Your task to perform on an android device: Clear the cart on bestbuy.com. Add "panasonic triple a" to the cart on bestbuy.com, then select checkout. Image 0: 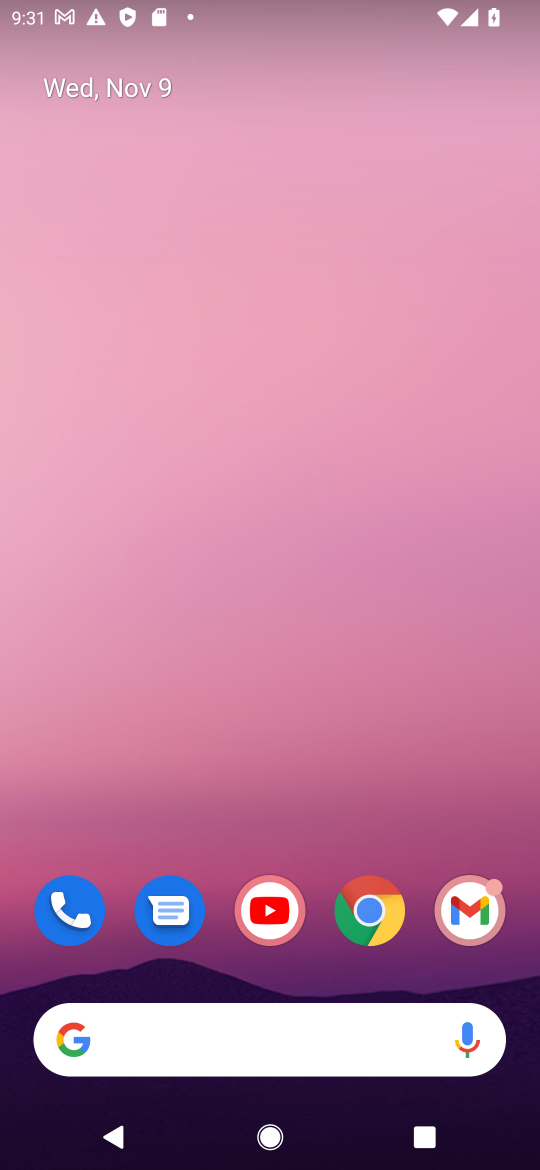
Step 0: click (374, 916)
Your task to perform on an android device: Clear the cart on bestbuy.com. Add "panasonic triple a" to the cart on bestbuy.com, then select checkout. Image 1: 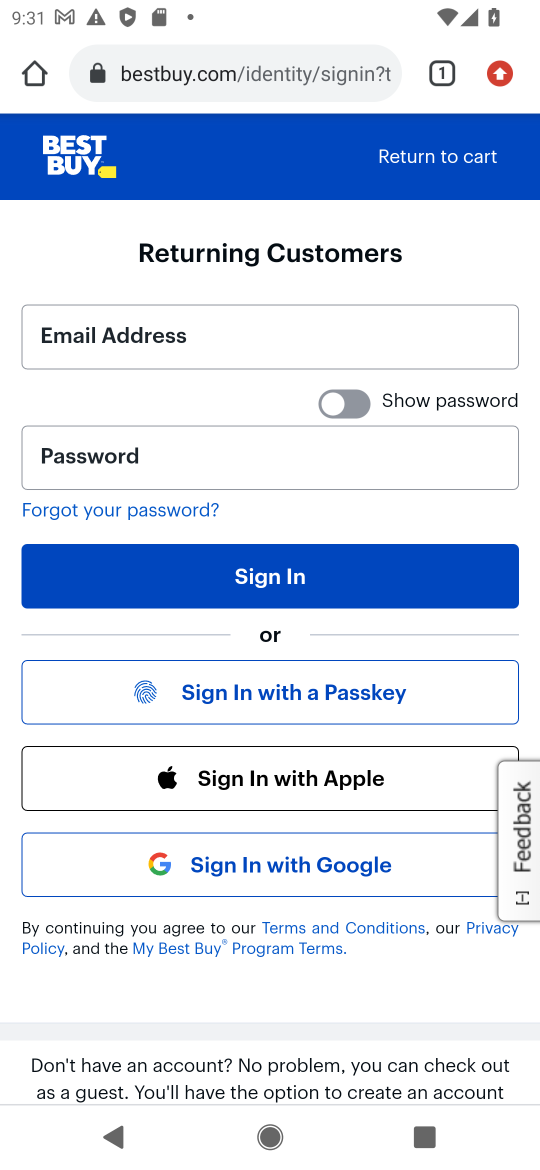
Step 1: click (415, 160)
Your task to perform on an android device: Clear the cart on bestbuy.com. Add "panasonic triple a" to the cart on bestbuy.com, then select checkout. Image 2: 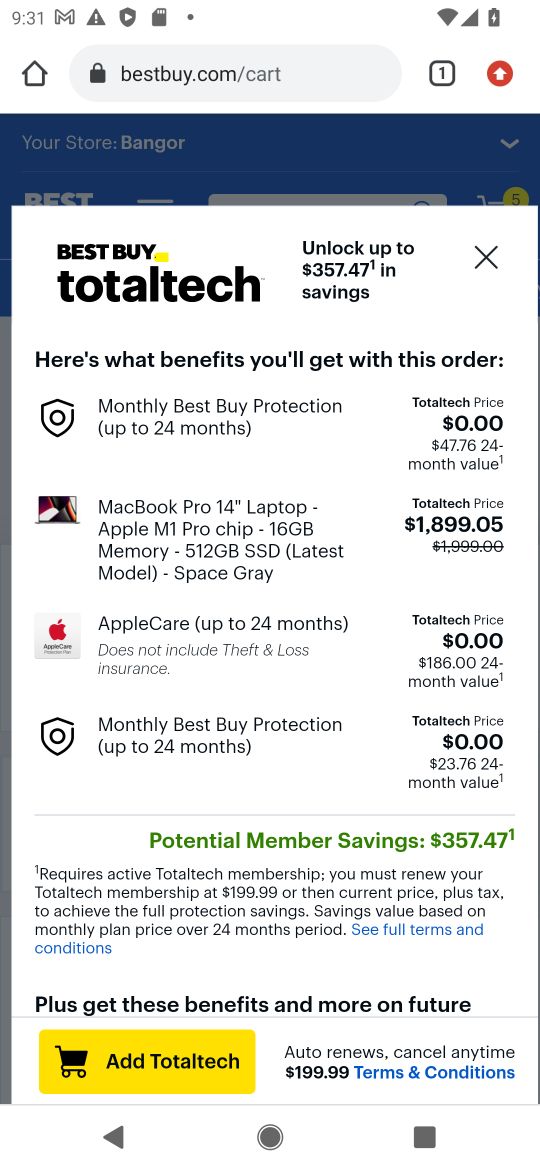
Step 2: click (493, 265)
Your task to perform on an android device: Clear the cart on bestbuy.com. Add "panasonic triple a" to the cart on bestbuy.com, then select checkout. Image 3: 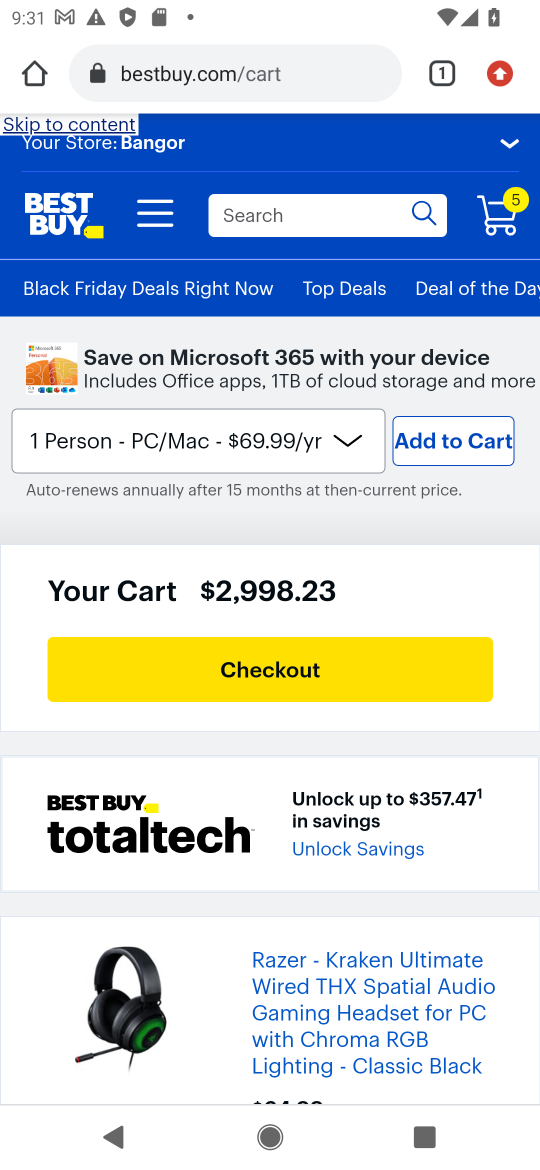
Step 3: drag from (176, 740) to (232, 349)
Your task to perform on an android device: Clear the cart on bestbuy.com. Add "panasonic triple a" to the cart on bestbuy.com, then select checkout. Image 4: 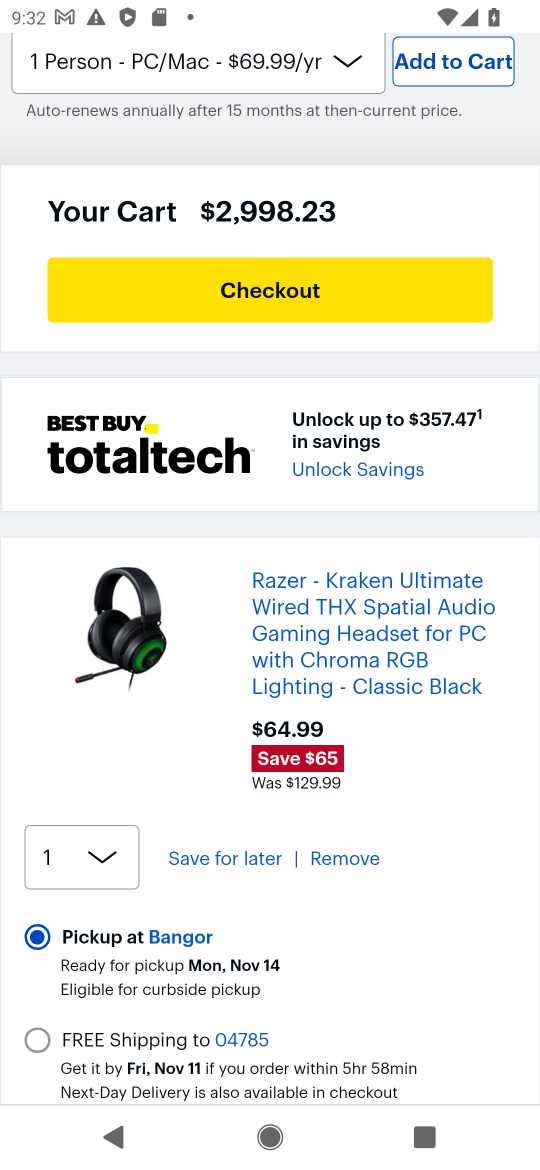
Step 4: click (354, 861)
Your task to perform on an android device: Clear the cart on bestbuy.com. Add "panasonic triple a" to the cart on bestbuy.com, then select checkout. Image 5: 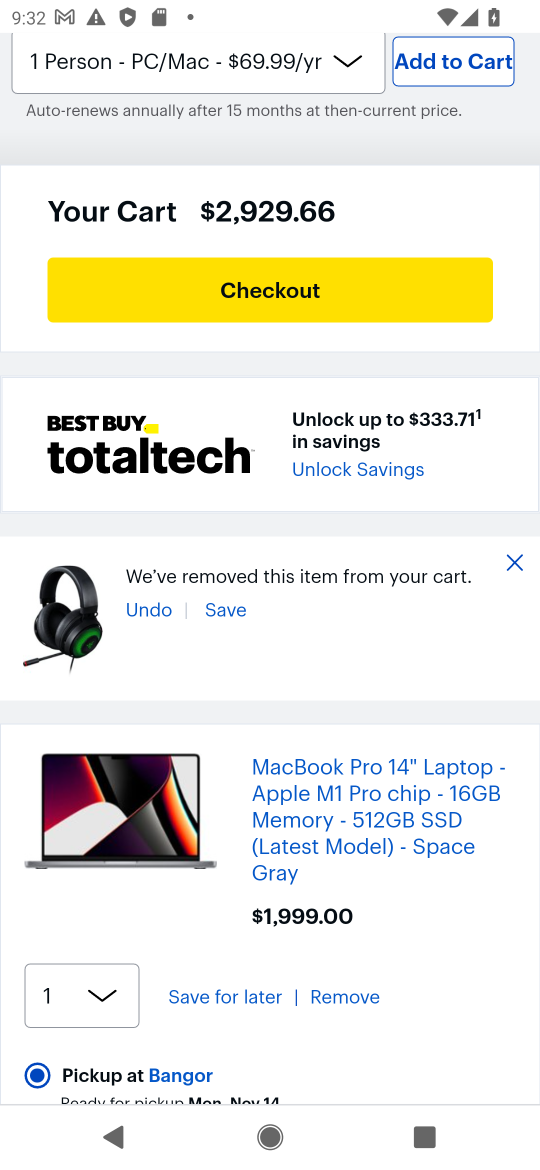
Step 5: click (355, 1009)
Your task to perform on an android device: Clear the cart on bestbuy.com. Add "panasonic triple a" to the cart on bestbuy.com, then select checkout. Image 6: 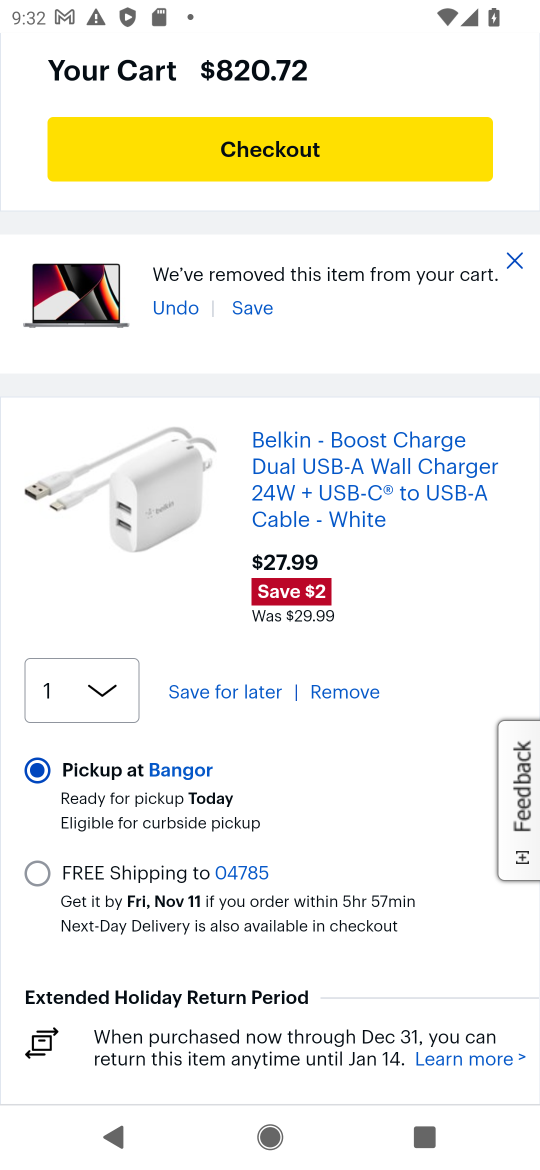
Step 6: click (331, 699)
Your task to perform on an android device: Clear the cart on bestbuy.com. Add "panasonic triple a" to the cart on bestbuy.com, then select checkout. Image 7: 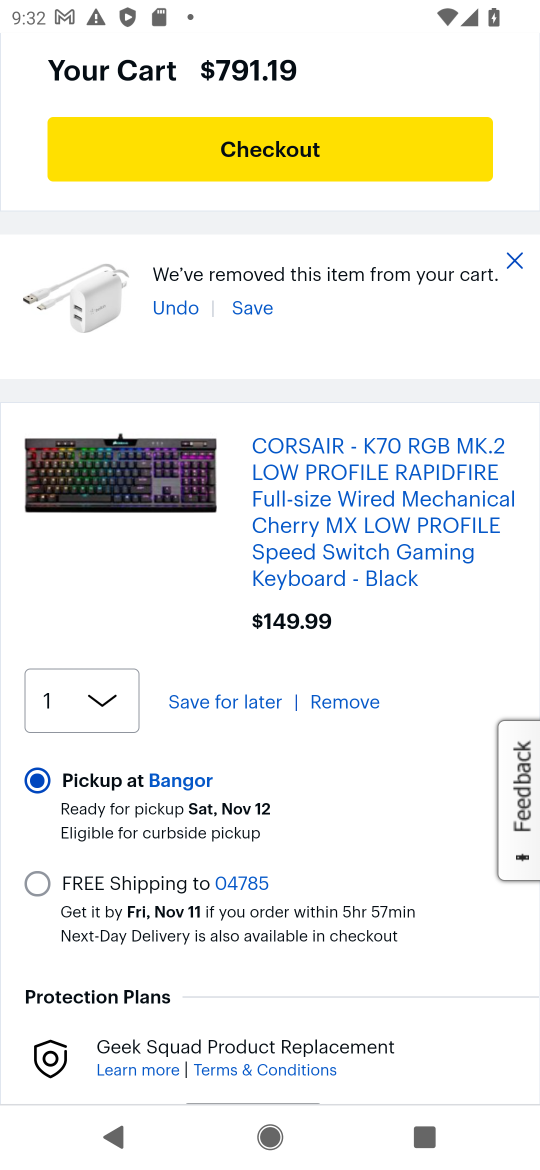
Step 7: click (331, 699)
Your task to perform on an android device: Clear the cart on bestbuy.com. Add "panasonic triple a" to the cart on bestbuy.com, then select checkout. Image 8: 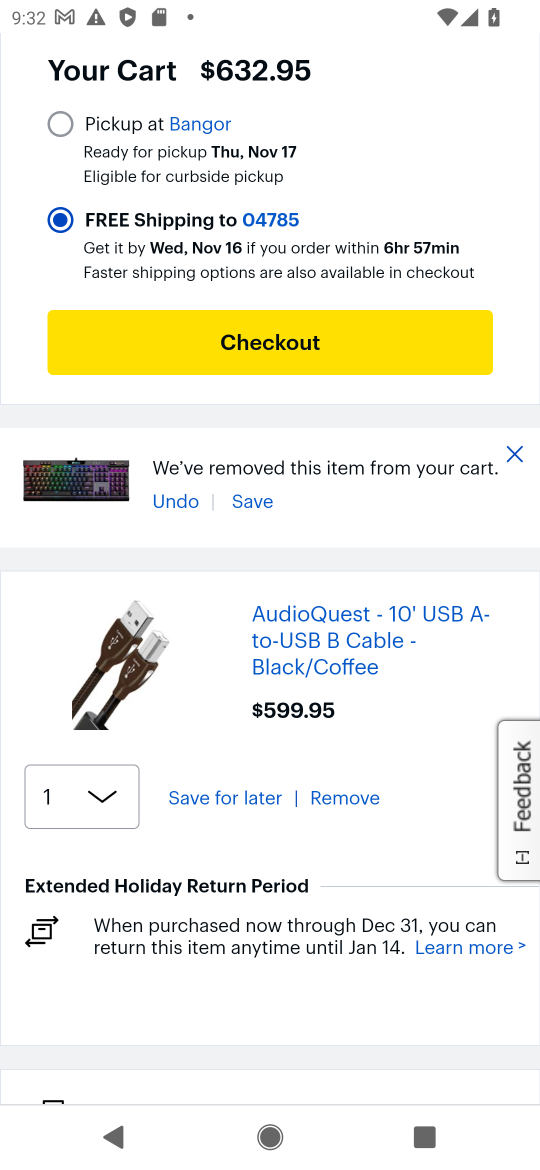
Step 8: click (341, 810)
Your task to perform on an android device: Clear the cart on bestbuy.com. Add "panasonic triple a" to the cart on bestbuy.com, then select checkout. Image 9: 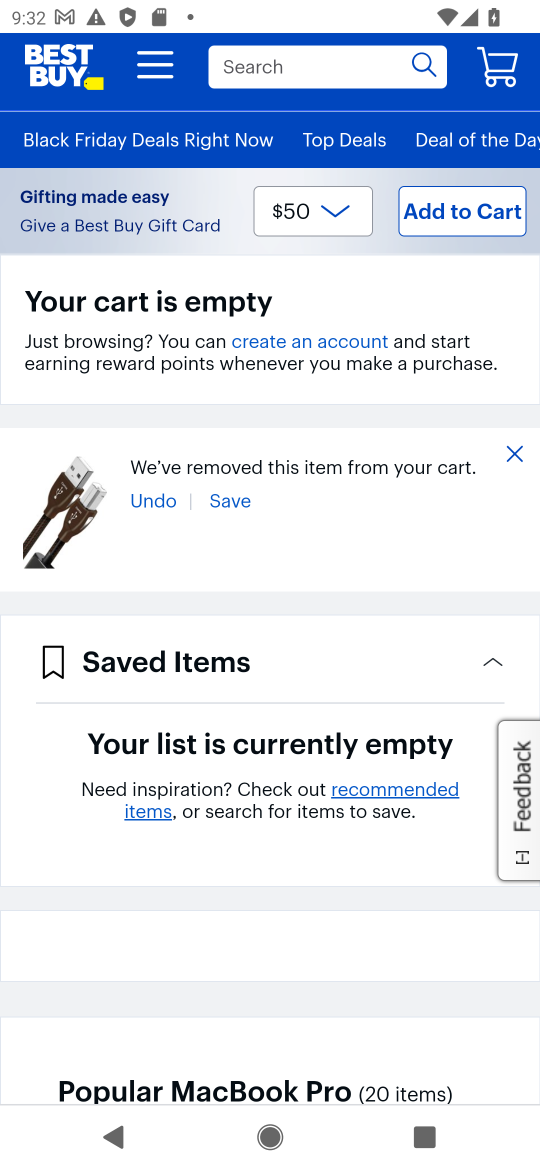
Step 9: click (281, 65)
Your task to perform on an android device: Clear the cart on bestbuy.com. Add "panasonic triple a" to the cart on bestbuy.com, then select checkout. Image 10: 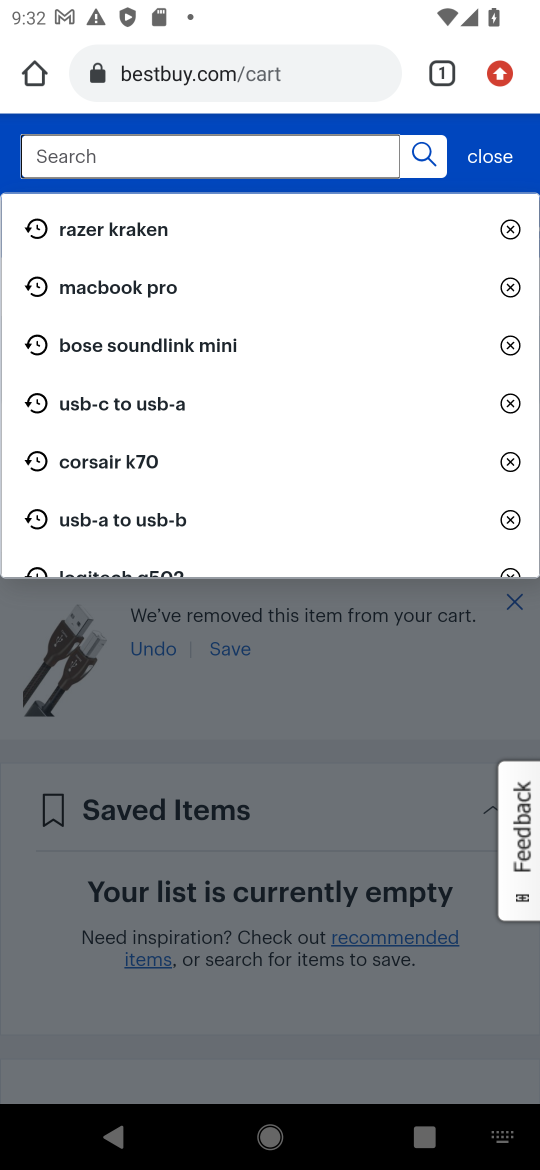
Step 10: type "panasonic triple a"
Your task to perform on an android device: Clear the cart on bestbuy.com. Add "panasonic triple a" to the cart on bestbuy.com, then select checkout. Image 11: 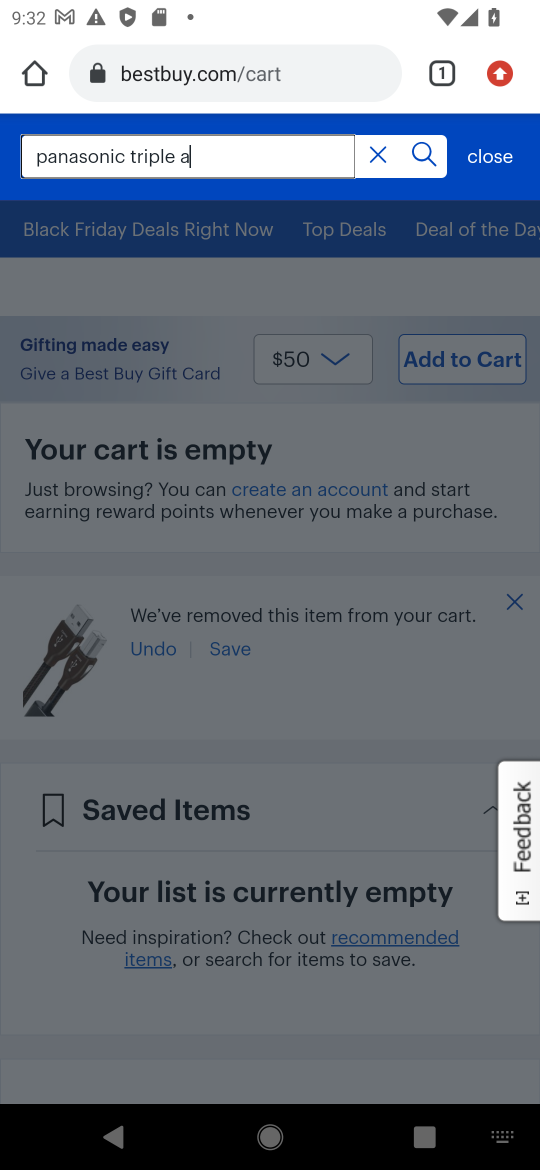
Step 11: click (418, 158)
Your task to perform on an android device: Clear the cart on bestbuy.com. Add "panasonic triple a" to the cart on bestbuy.com, then select checkout. Image 12: 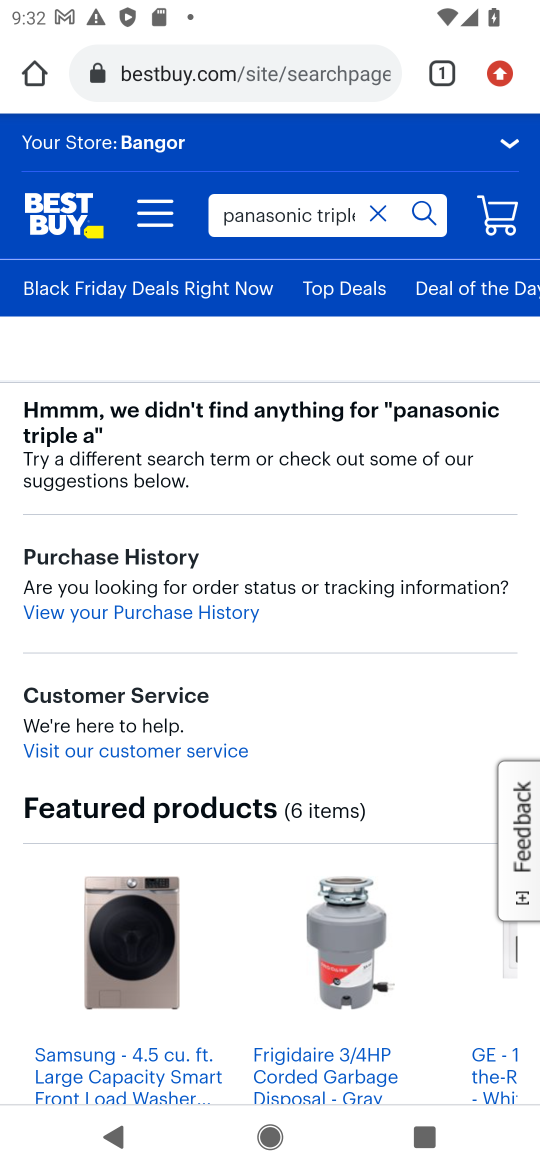
Step 12: task complete